Your task to perform on an android device: make emails show in primary in the gmail app Image 0: 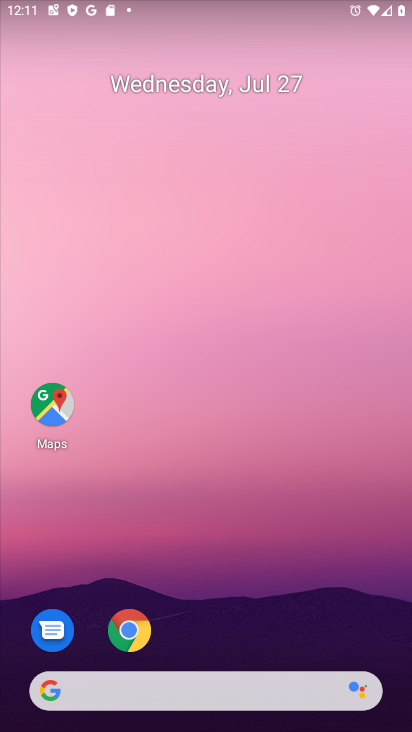
Step 0: drag from (181, 720) to (169, 164)
Your task to perform on an android device: make emails show in primary in the gmail app Image 1: 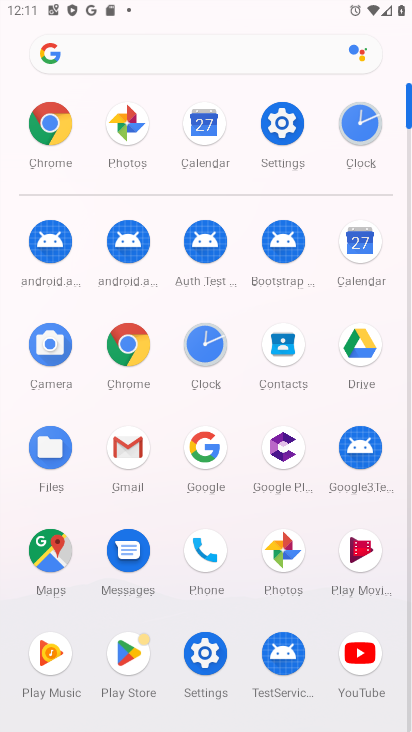
Step 1: click (120, 460)
Your task to perform on an android device: make emails show in primary in the gmail app Image 2: 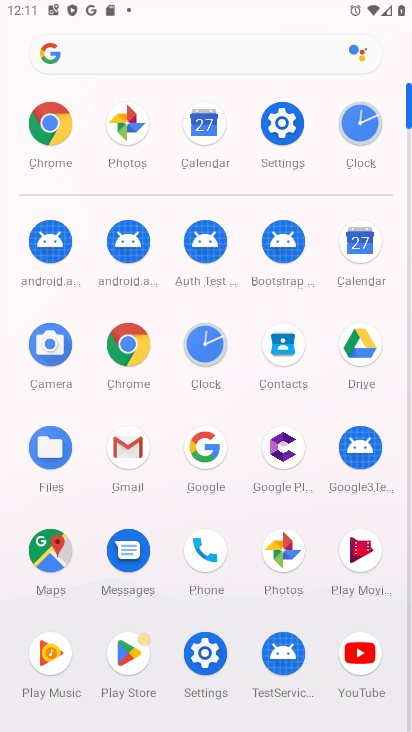
Step 2: click (120, 460)
Your task to perform on an android device: make emails show in primary in the gmail app Image 3: 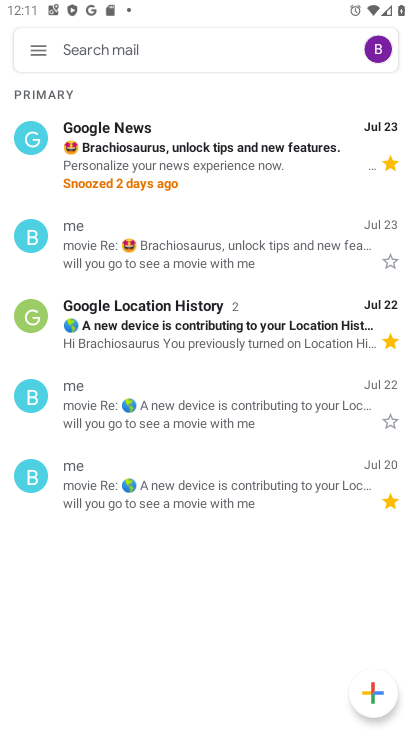
Step 3: click (39, 41)
Your task to perform on an android device: make emails show in primary in the gmail app Image 4: 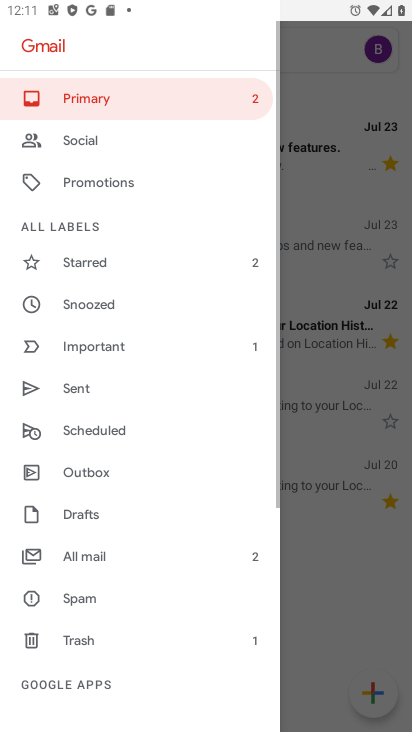
Step 4: drag from (129, 685) to (128, 2)
Your task to perform on an android device: make emails show in primary in the gmail app Image 5: 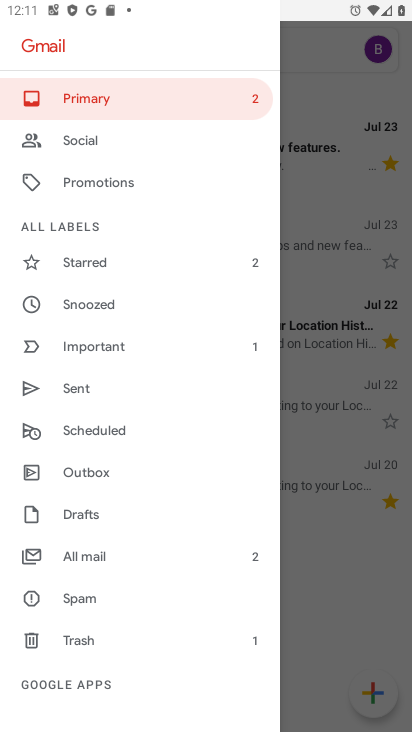
Step 5: drag from (145, 639) to (220, 103)
Your task to perform on an android device: make emails show in primary in the gmail app Image 6: 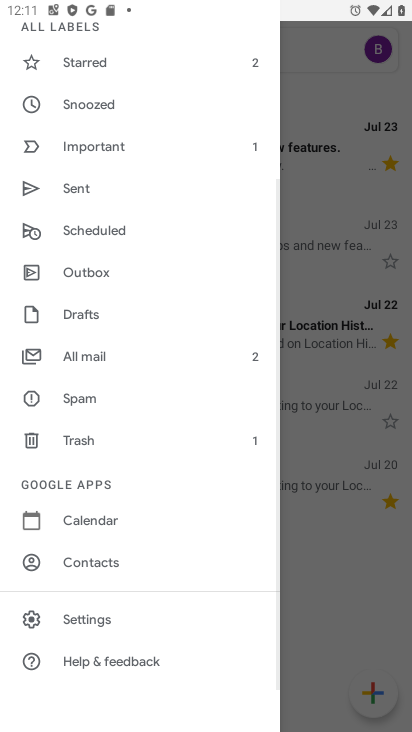
Step 6: click (126, 620)
Your task to perform on an android device: make emails show in primary in the gmail app Image 7: 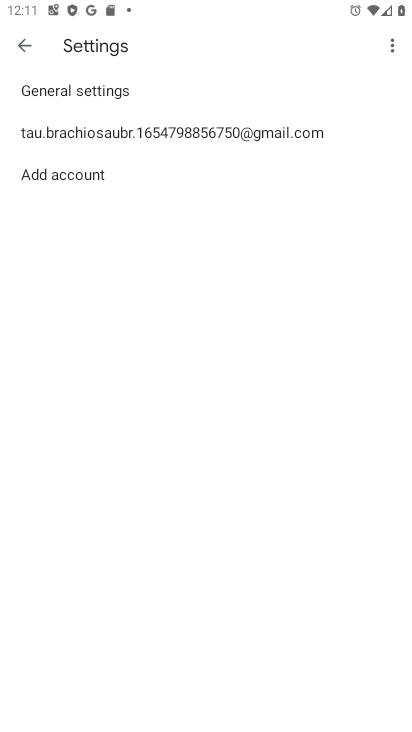
Step 7: click (50, 128)
Your task to perform on an android device: make emails show in primary in the gmail app Image 8: 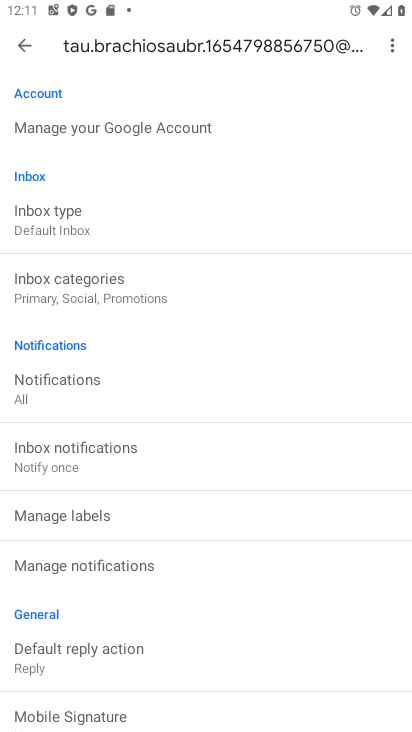
Step 8: click (132, 288)
Your task to perform on an android device: make emails show in primary in the gmail app Image 9: 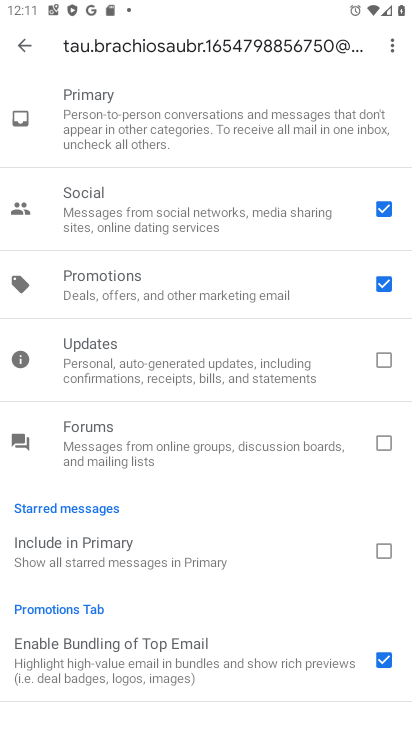
Step 9: click (382, 281)
Your task to perform on an android device: make emails show in primary in the gmail app Image 10: 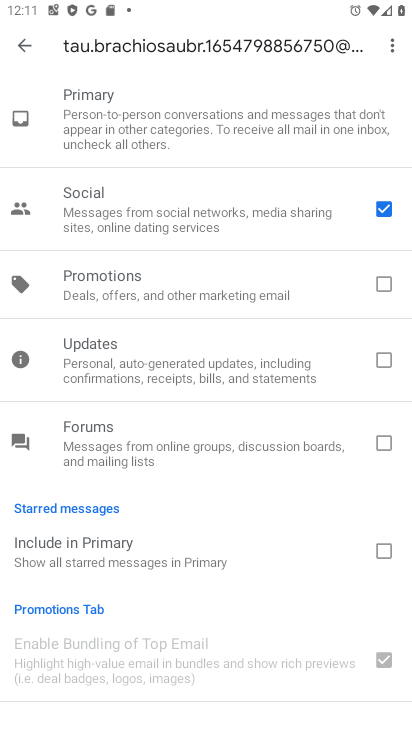
Step 10: click (385, 207)
Your task to perform on an android device: make emails show in primary in the gmail app Image 11: 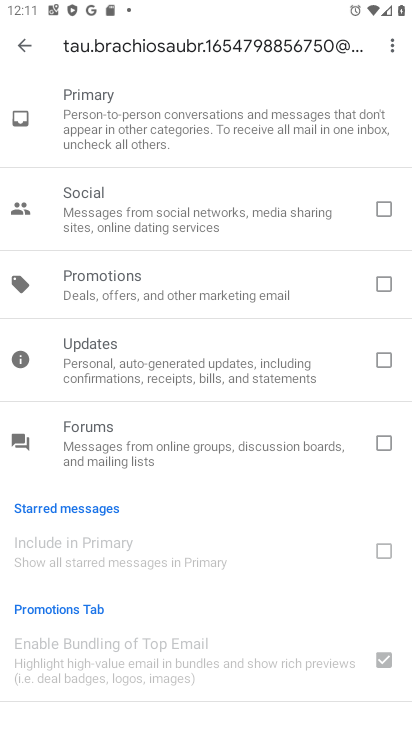
Step 11: task complete